Your task to perform on an android device: What's on my calendar tomorrow? Image 0: 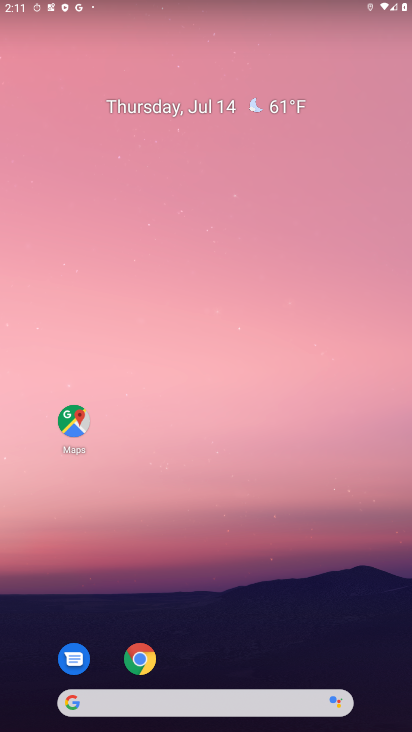
Step 0: drag from (202, 657) to (226, 72)
Your task to perform on an android device: What's on my calendar tomorrow? Image 1: 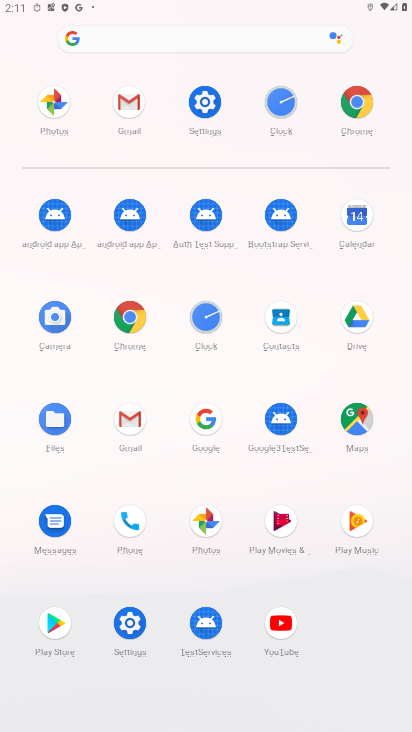
Step 1: click (359, 216)
Your task to perform on an android device: What's on my calendar tomorrow? Image 2: 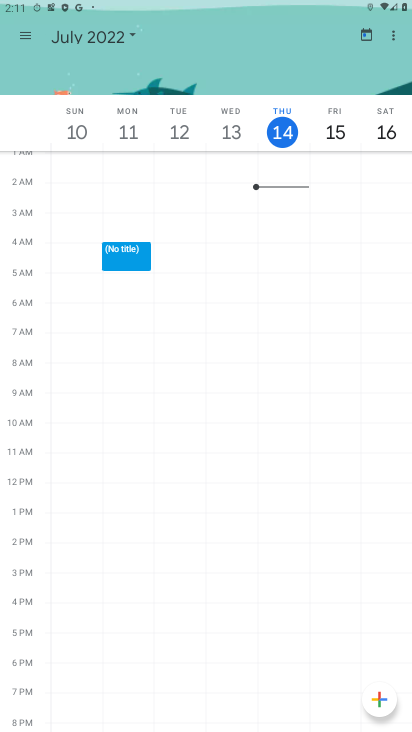
Step 2: click (321, 134)
Your task to perform on an android device: What's on my calendar tomorrow? Image 3: 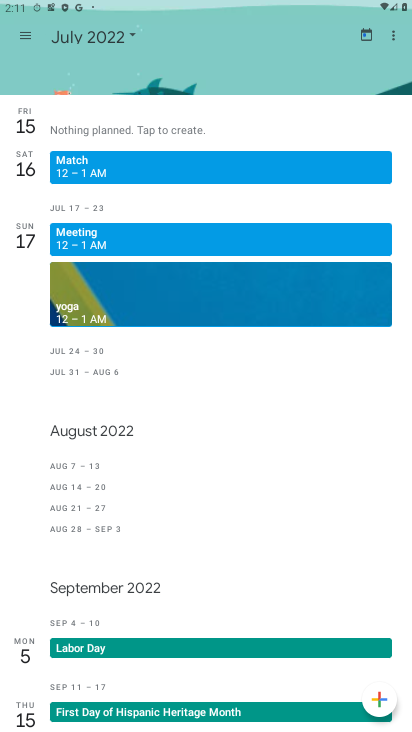
Step 3: task complete